Your task to perform on an android device: turn smart compose on in the gmail app Image 0: 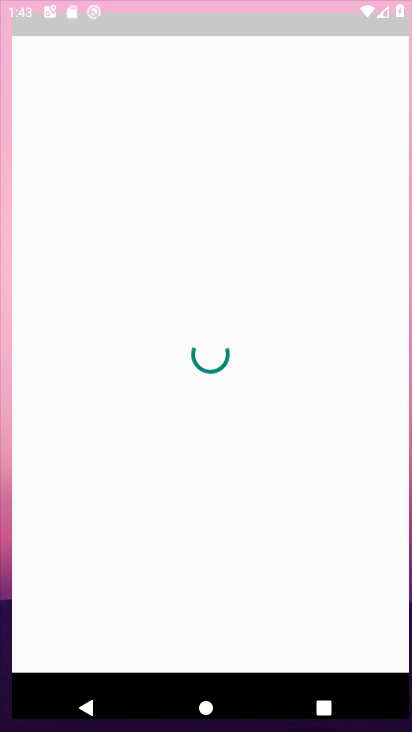
Step 0: drag from (257, 598) to (235, 314)
Your task to perform on an android device: turn smart compose on in the gmail app Image 1: 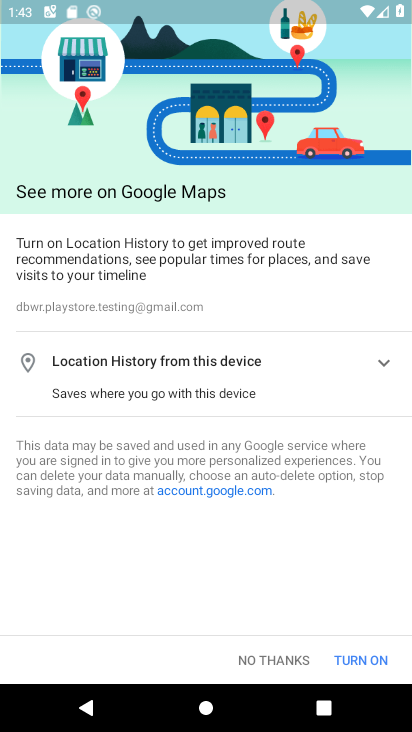
Step 1: press home button
Your task to perform on an android device: turn smart compose on in the gmail app Image 2: 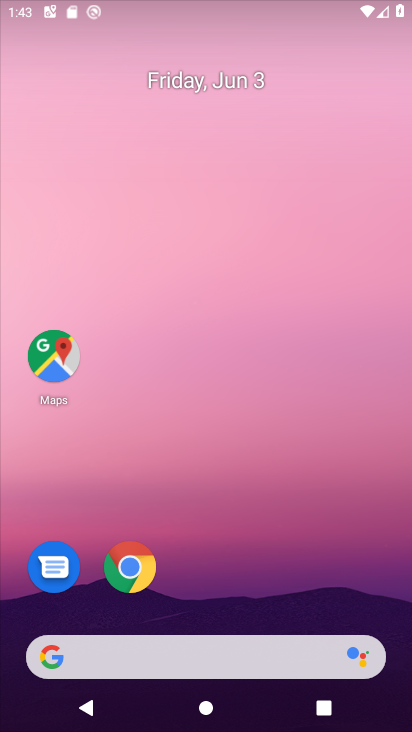
Step 2: drag from (219, 588) to (244, 300)
Your task to perform on an android device: turn smart compose on in the gmail app Image 3: 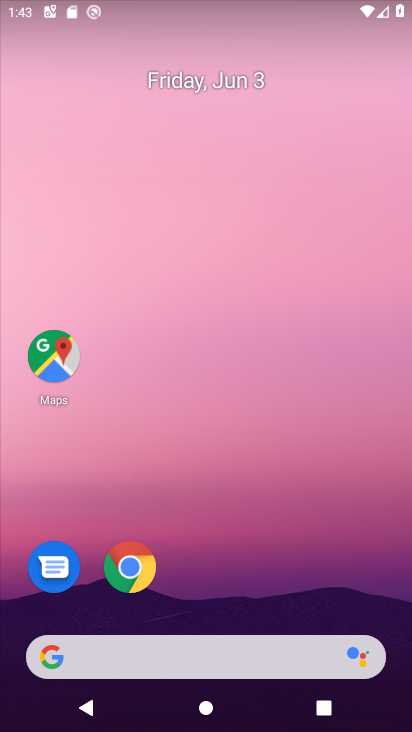
Step 3: drag from (241, 520) to (228, 239)
Your task to perform on an android device: turn smart compose on in the gmail app Image 4: 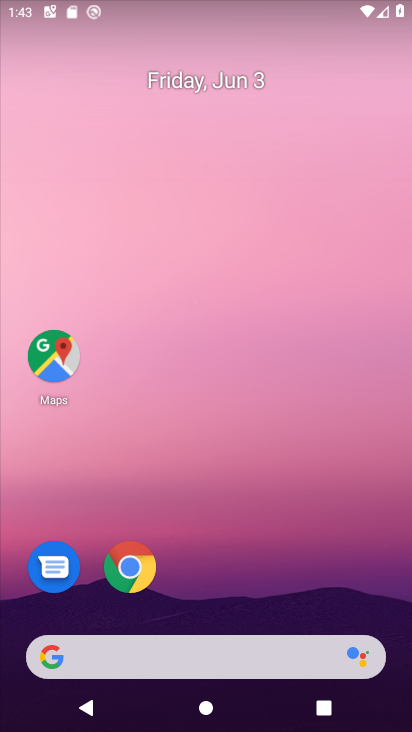
Step 4: drag from (194, 635) to (242, 247)
Your task to perform on an android device: turn smart compose on in the gmail app Image 5: 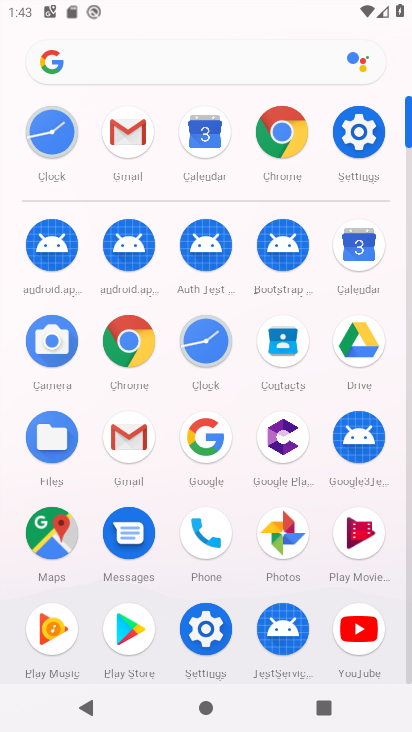
Step 5: click (124, 433)
Your task to perform on an android device: turn smart compose on in the gmail app Image 6: 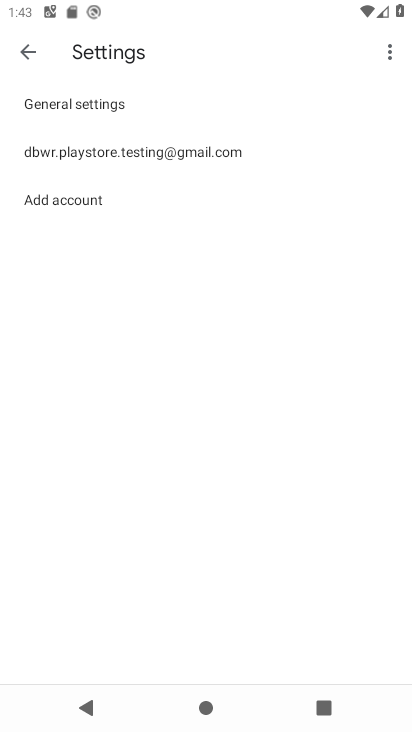
Step 6: click (108, 149)
Your task to perform on an android device: turn smart compose on in the gmail app Image 7: 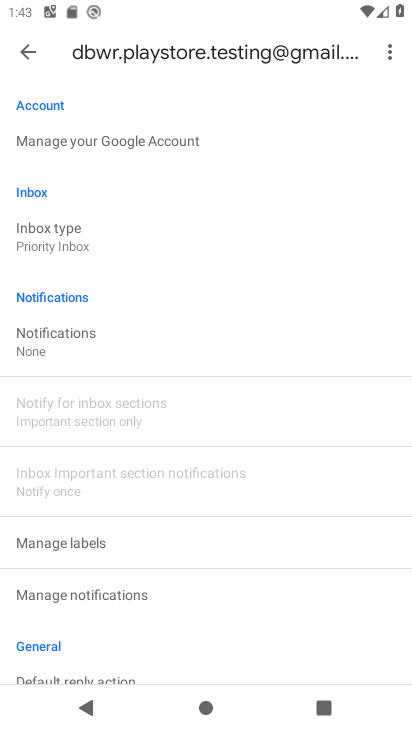
Step 7: task complete